Your task to perform on an android device: Show me recent news Image 0: 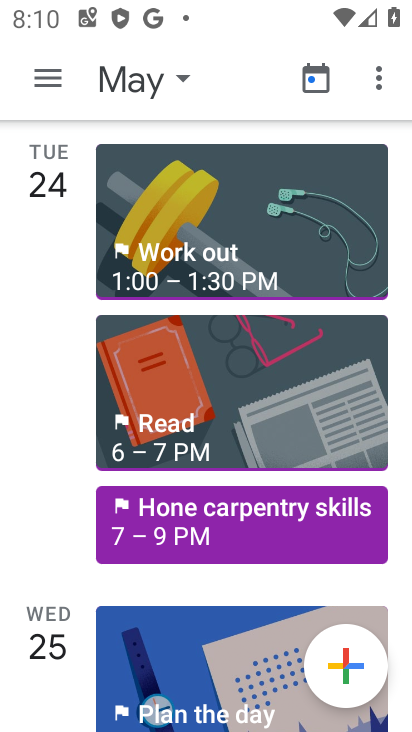
Step 0: press home button
Your task to perform on an android device: Show me recent news Image 1: 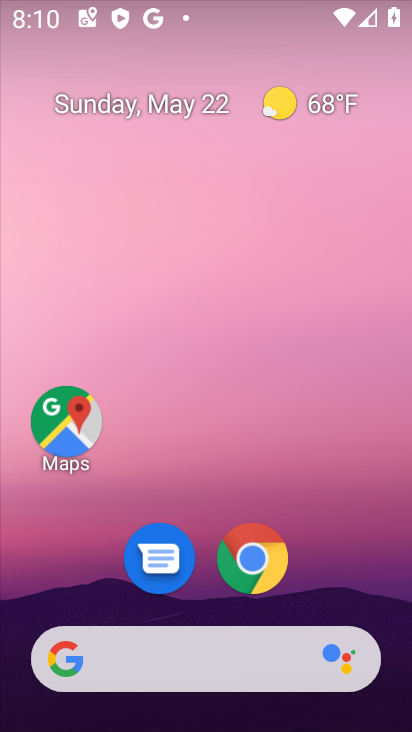
Step 1: click (240, 576)
Your task to perform on an android device: Show me recent news Image 2: 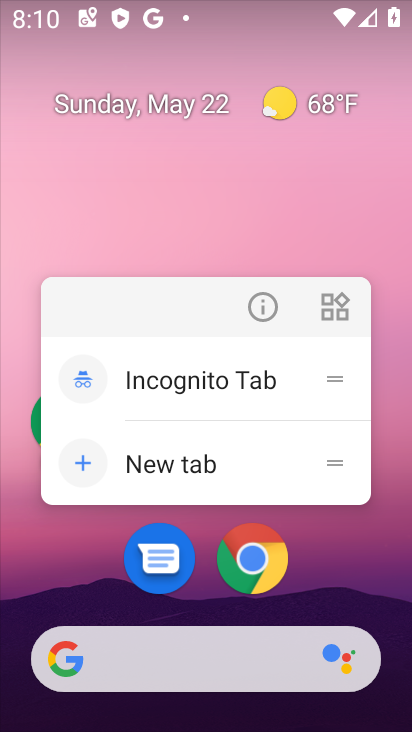
Step 2: click (263, 580)
Your task to perform on an android device: Show me recent news Image 3: 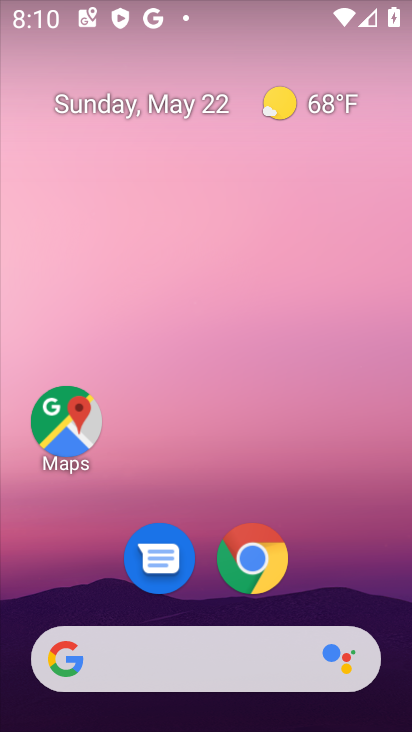
Step 3: click (256, 548)
Your task to perform on an android device: Show me recent news Image 4: 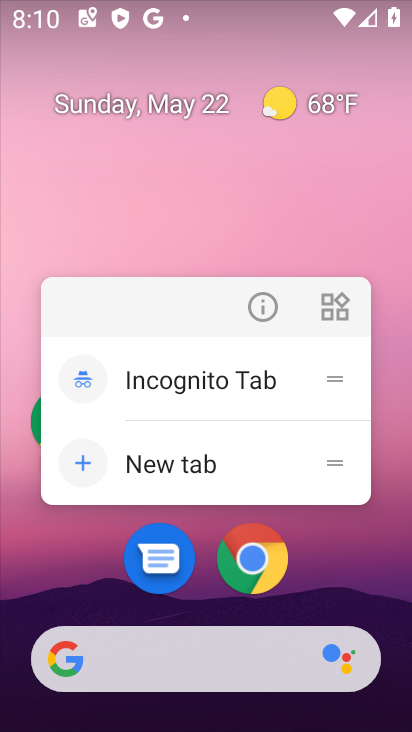
Step 4: click (256, 548)
Your task to perform on an android device: Show me recent news Image 5: 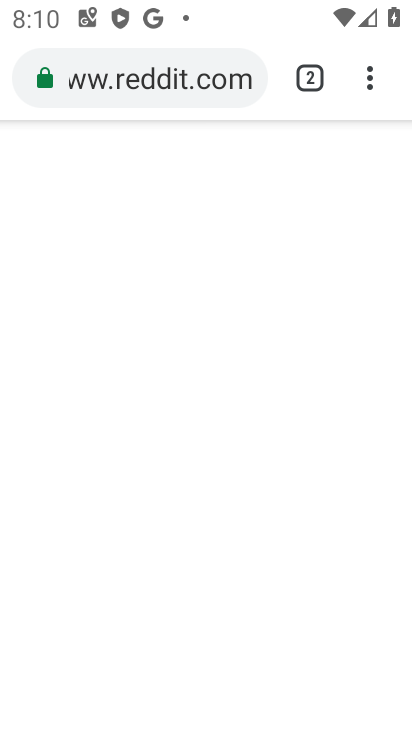
Step 5: click (317, 74)
Your task to perform on an android device: Show me recent news Image 6: 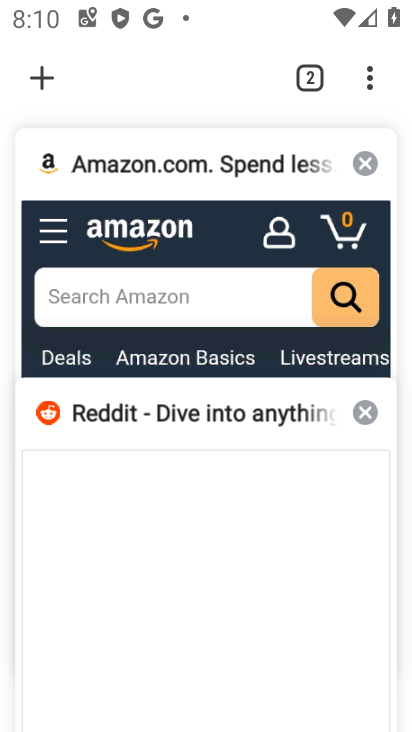
Step 6: drag from (181, 244) to (122, 576)
Your task to perform on an android device: Show me recent news Image 7: 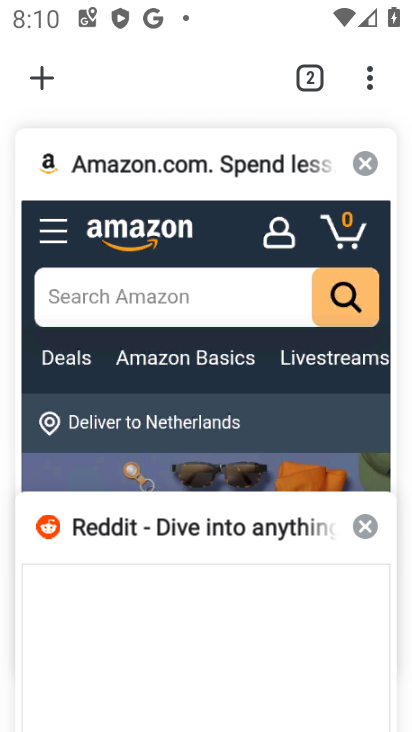
Step 7: click (32, 63)
Your task to perform on an android device: Show me recent news Image 8: 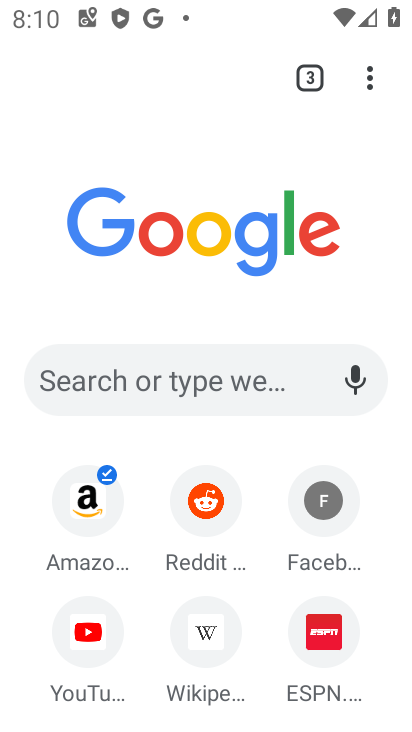
Step 8: click (187, 374)
Your task to perform on an android device: Show me recent news Image 9: 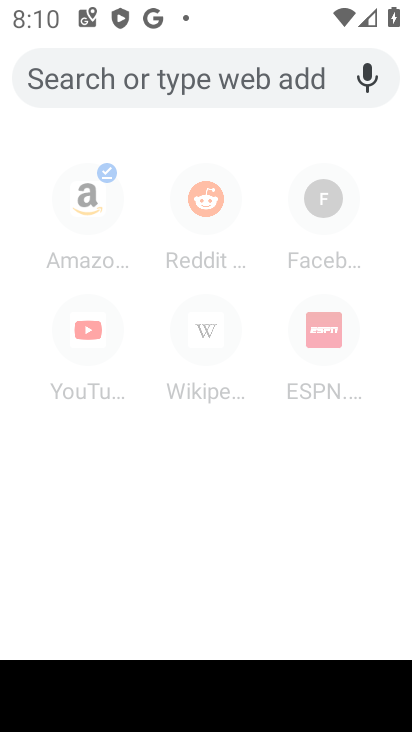
Step 9: type "Show me recent news"
Your task to perform on an android device: Show me recent news Image 10: 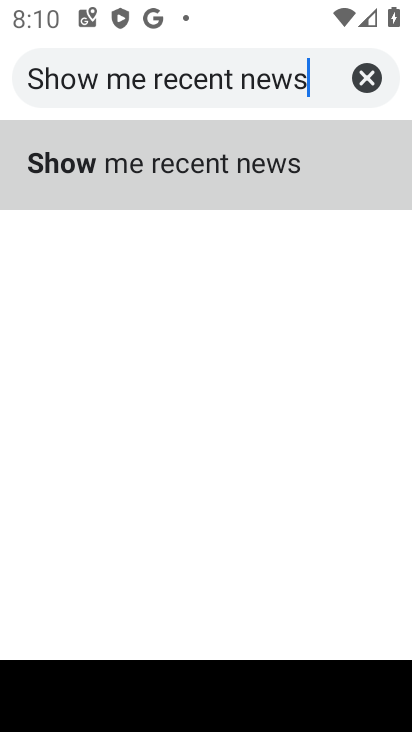
Step 10: click (208, 157)
Your task to perform on an android device: Show me recent news Image 11: 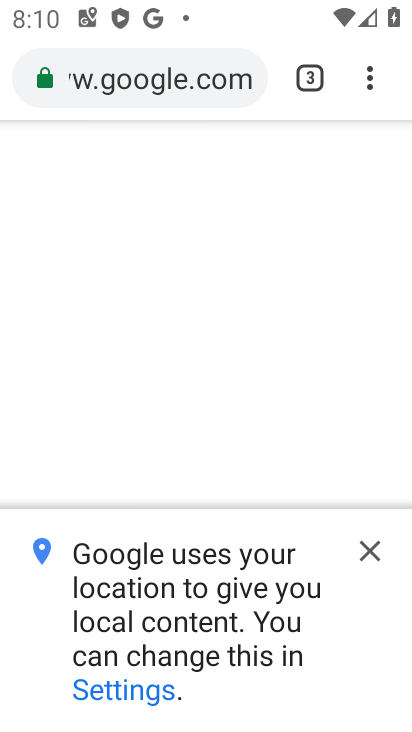
Step 11: click (355, 545)
Your task to perform on an android device: Show me recent news Image 12: 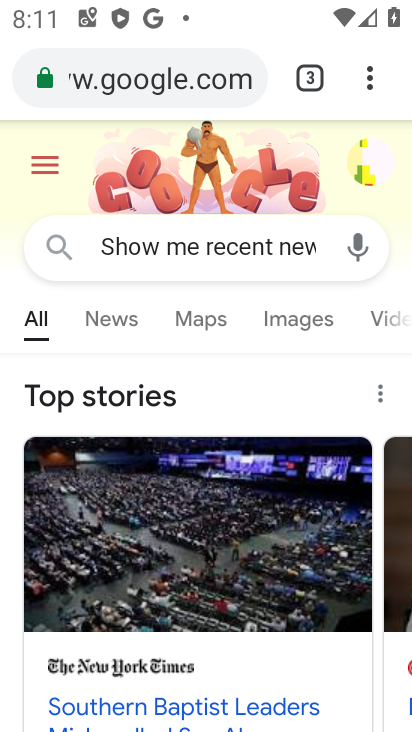
Step 12: task complete